Your task to perform on an android device: turn on the 24-hour format for clock Image 0: 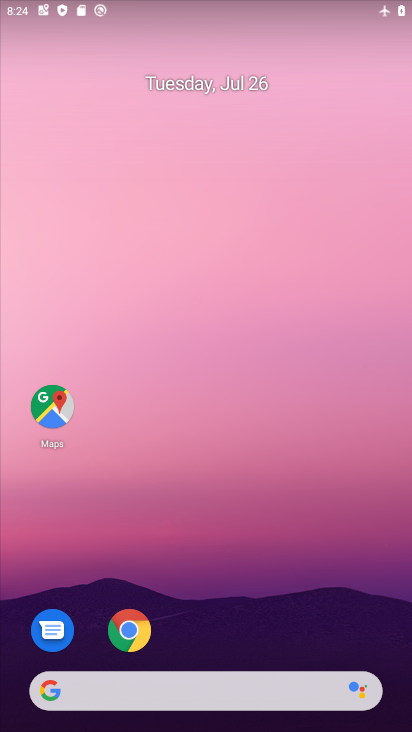
Step 0: drag from (284, 632) to (236, 125)
Your task to perform on an android device: turn on the 24-hour format for clock Image 1: 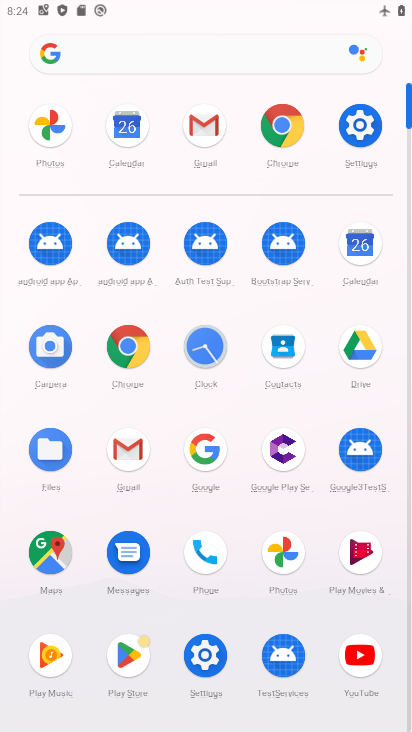
Step 1: click (204, 344)
Your task to perform on an android device: turn on the 24-hour format for clock Image 2: 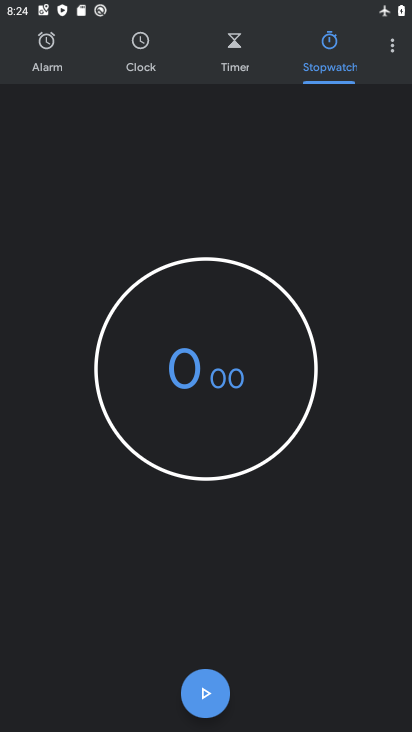
Step 2: click (388, 60)
Your task to perform on an android device: turn on the 24-hour format for clock Image 3: 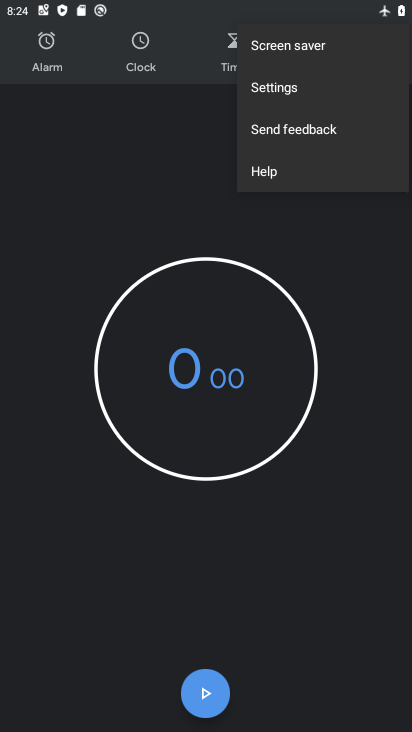
Step 3: click (288, 99)
Your task to perform on an android device: turn on the 24-hour format for clock Image 4: 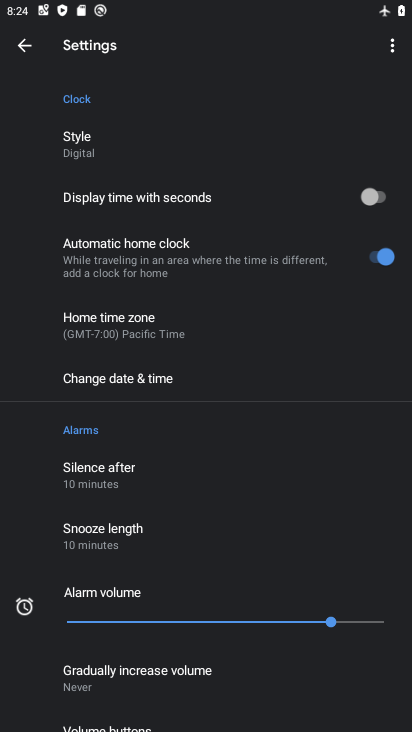
Step 4: click (137, 366)
Your task to perform on an android device: turn on the 24-hour format for clock Image 5: 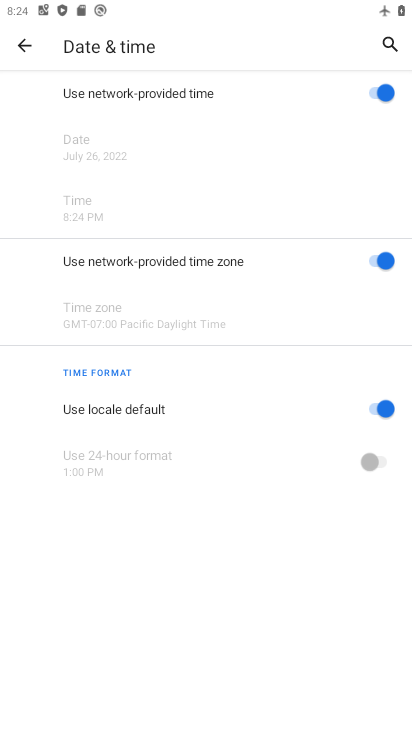
Step 5: click (369, 402)
Your task to perform on an android device: turn on the 24-hour format for clock Image 6: 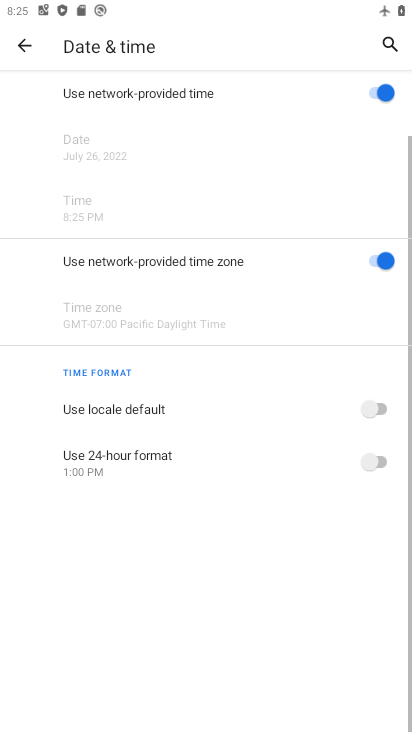
Step 6: click (371, 461)
Your task to perform on an android device: turn on the 24-hour format for clock Image 7: 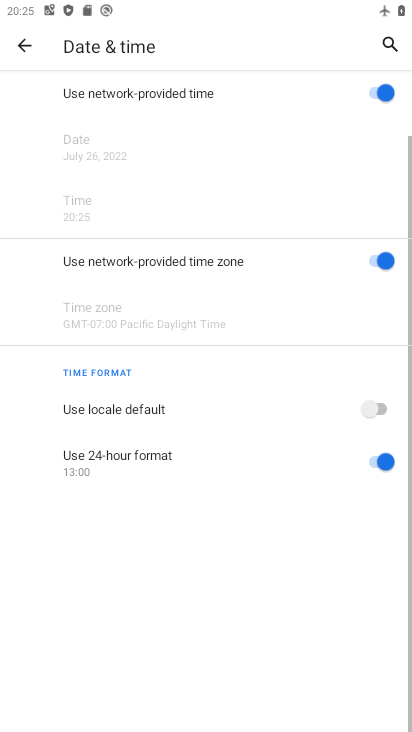
Step 7: task complete